Your task to perform on an android device: Do I have any events tomorrow? Image 0: 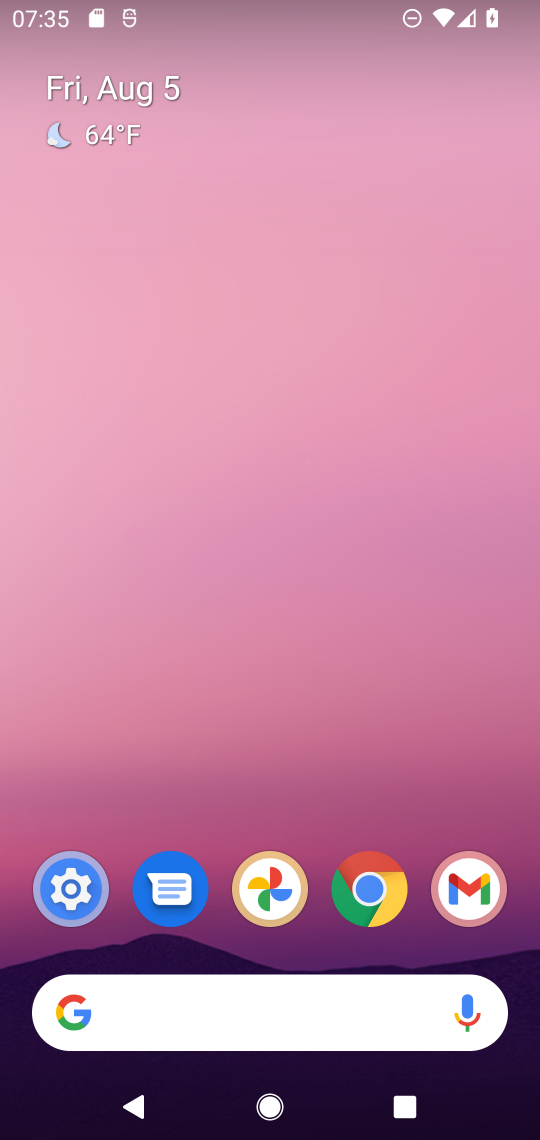
Step 0: drag from (184, 998) to (417, 4)
Your task to perform on an android device: Do I have any events tomorrow? Image 1: 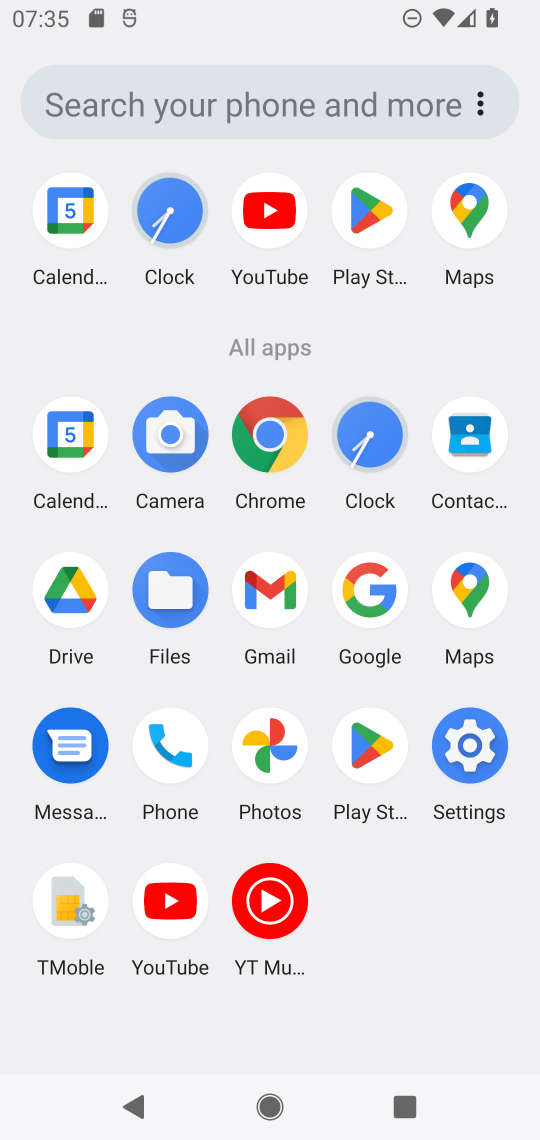
Step 1: click (84, 448)
Your task to perform on an android device: Do I have any events tomorrow? Image 2: 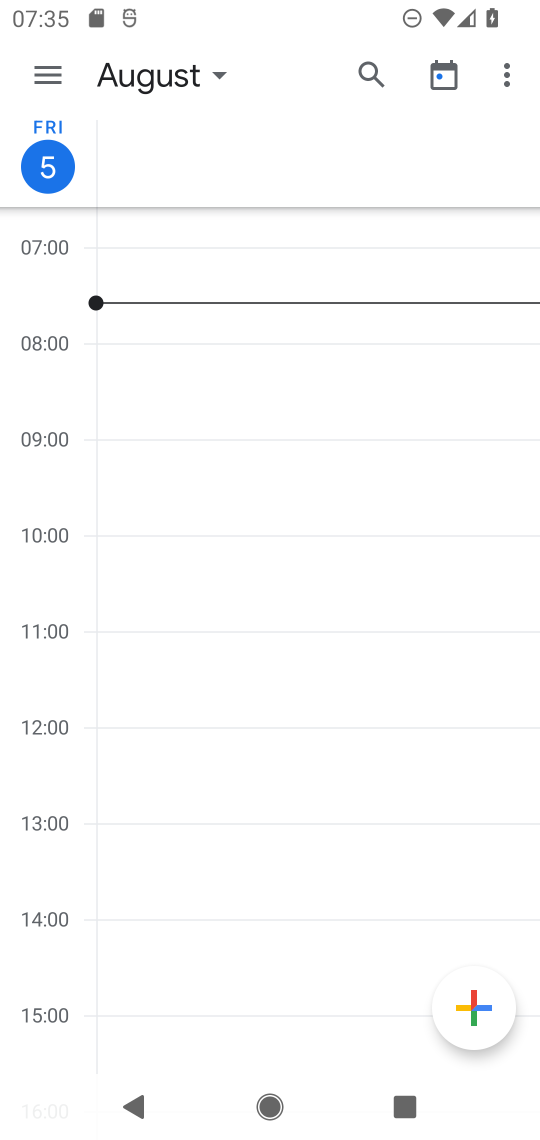
Step 2: click (167, 69)
Your task to perform on an android device: Do I have any events tomorrow? Image 3: 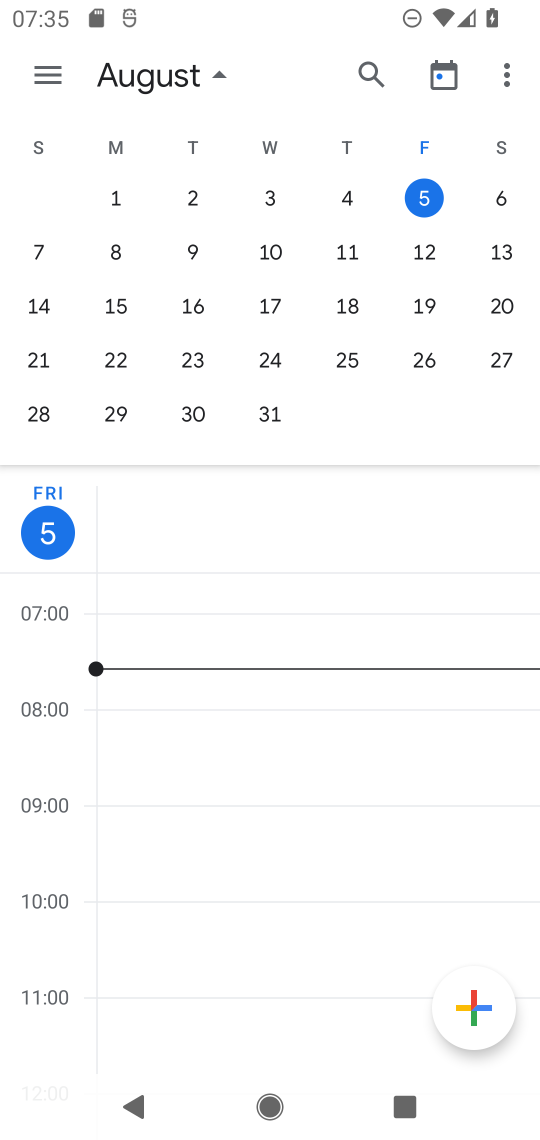
Step 3: click (489, 210)
Your task to perform on an android device: Do I have any events tomorrow? Image 4: 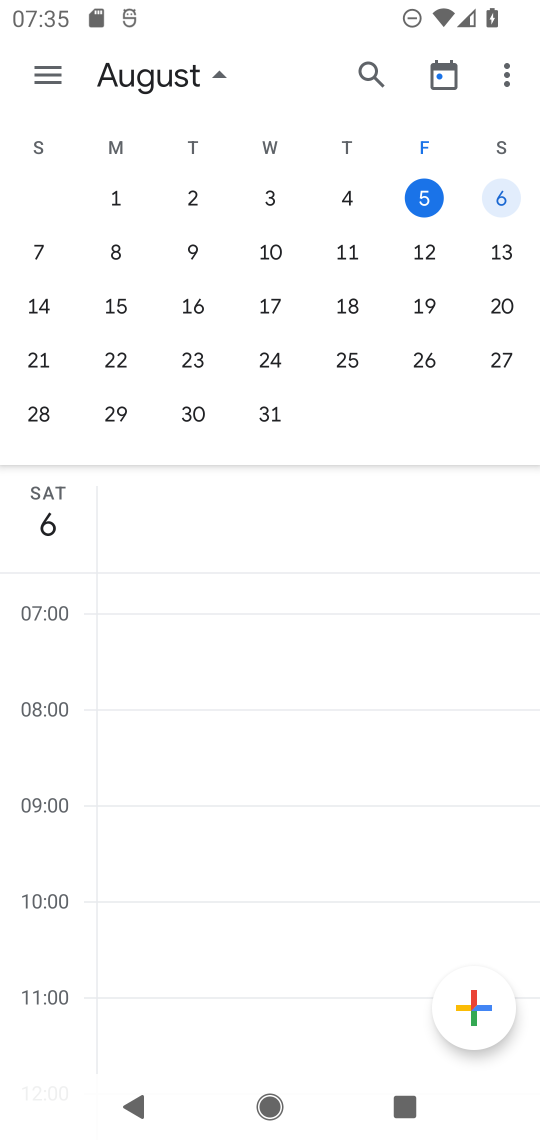
Step 4: task complete